Your task to perform on an android device: Open display settings Image 0: 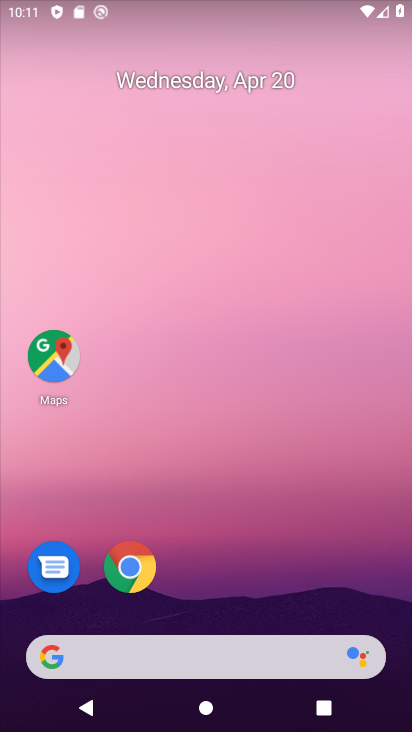
Step 0: drag from (274, 599) to (312, 32)
Your task to perform on an android device: Open display settings Image 1: 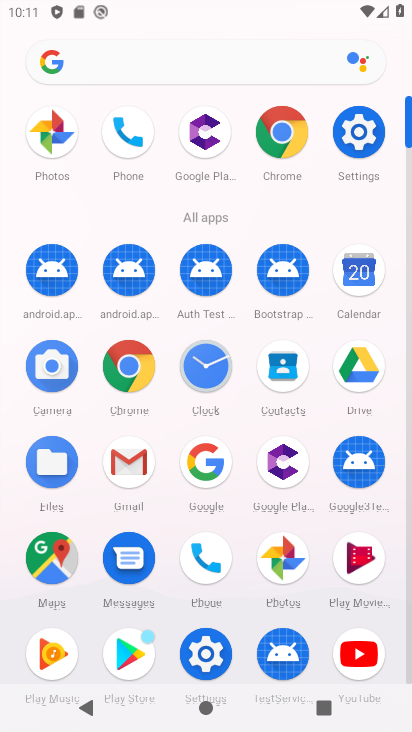
Step 1: click (361, 134)
Your task to perform on an android device: Open display settings Image 2: 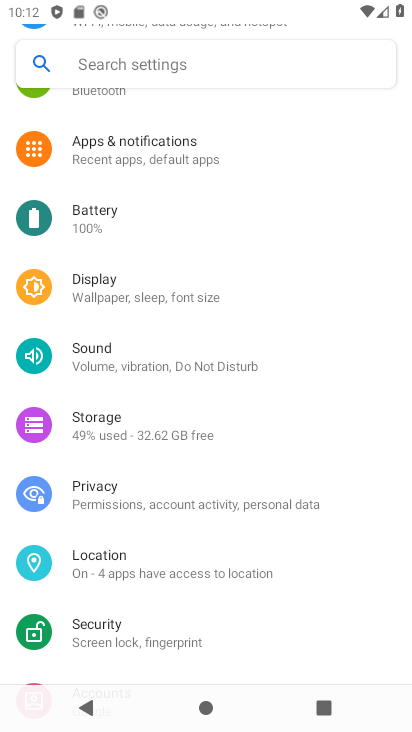
Step 2: click (185, 295)
Your task to perform on an android device: Open display settings Image 3: 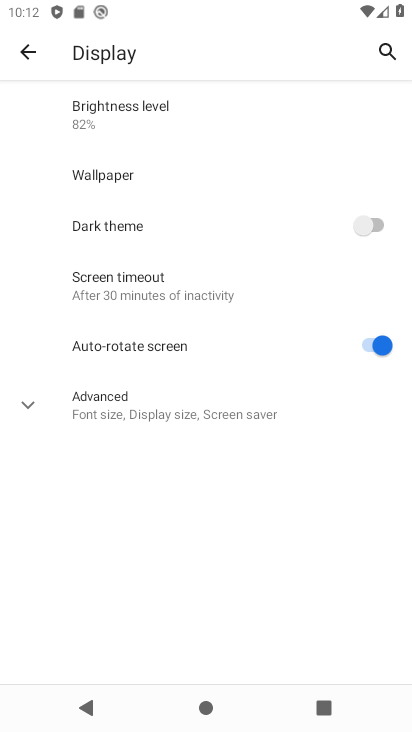
Step 3: task complete